Your task to perform on an android device: Open the phone app and click the voicemail tab. Image 0: 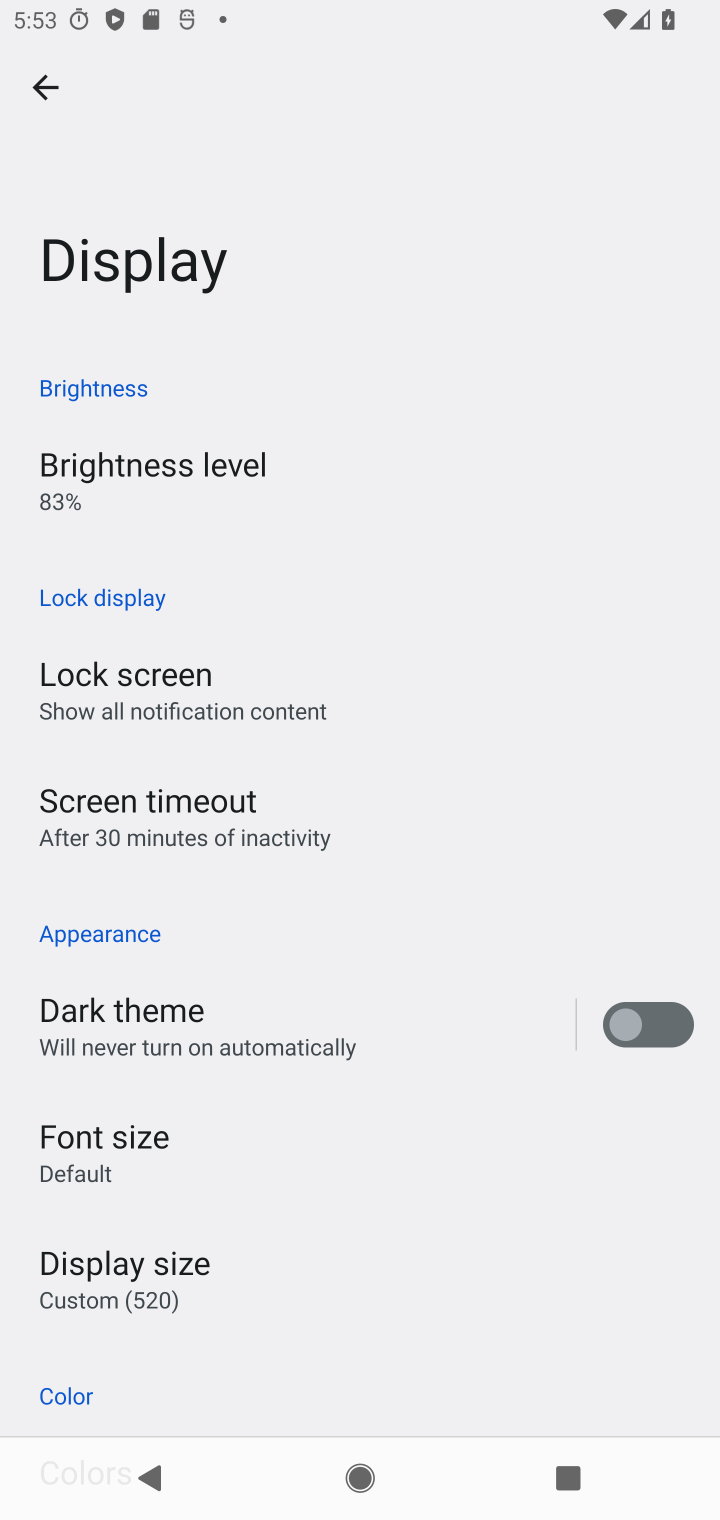
Step 0: press home button
Your task to perform on an android device: Open the phone app and click the voicemail tab. Image 1: 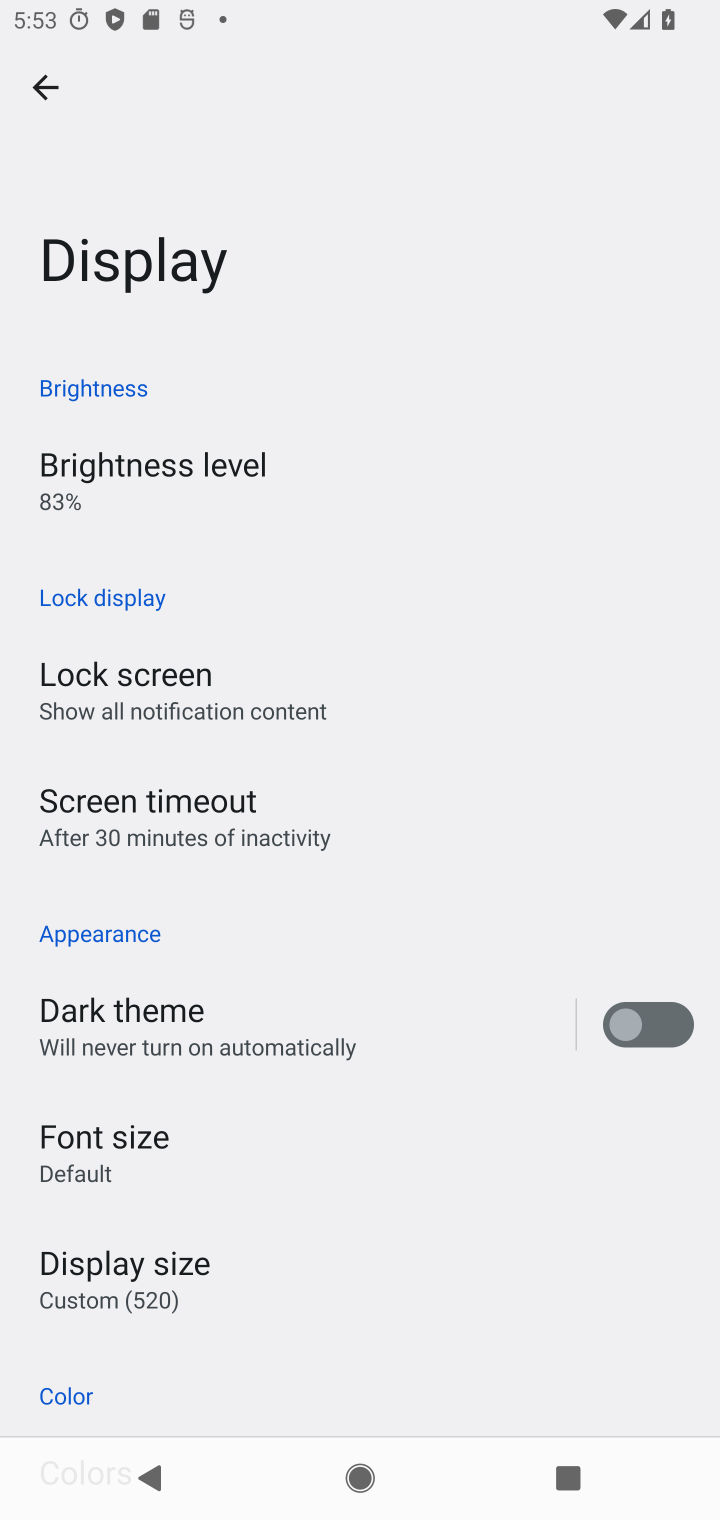
Step 1: press home button
Your task to perform on an android device: Open the phone app and click the voicemail tab. Image 2: 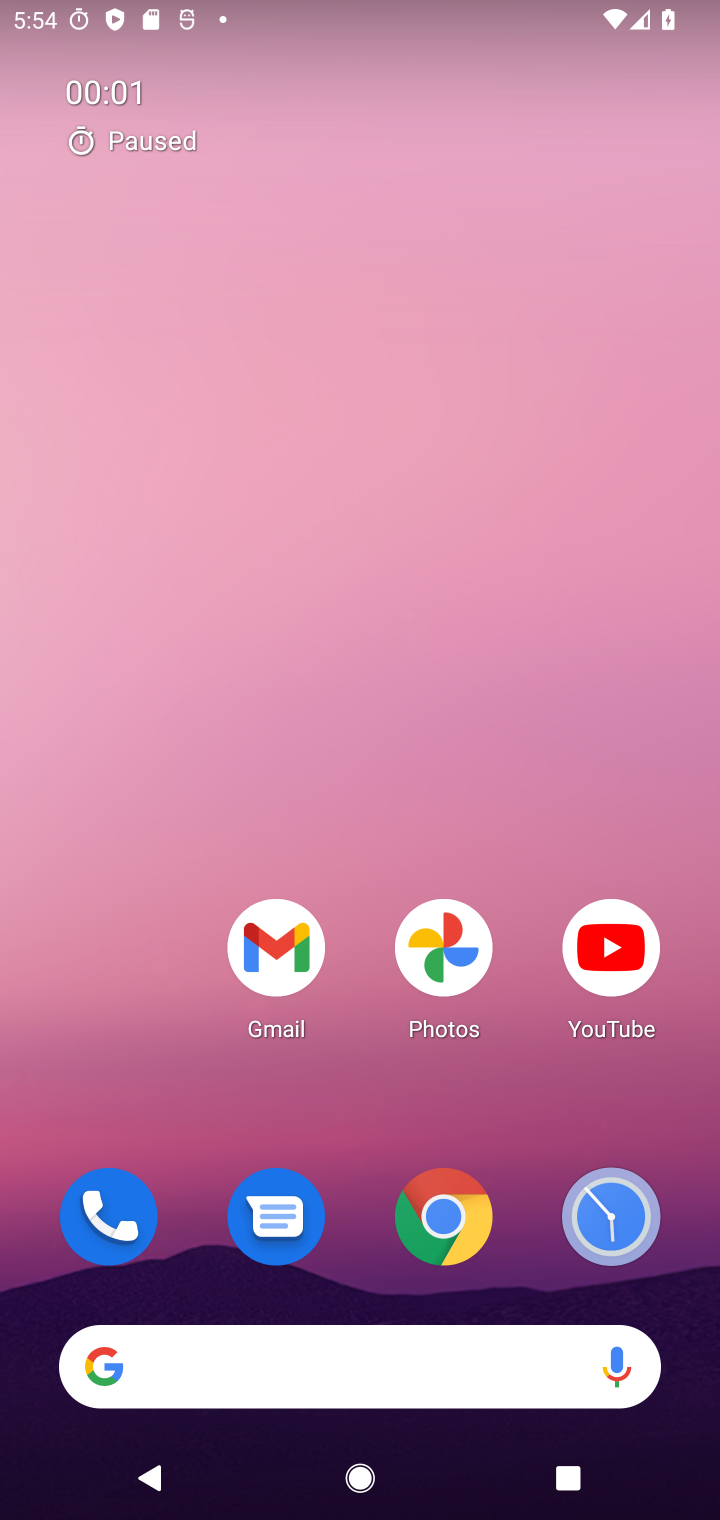
Step 2: drag from (354, 1125) to (356, 198)
Your task to perform on an android device: Open the phone app and click the voicemail tab. Image 3: 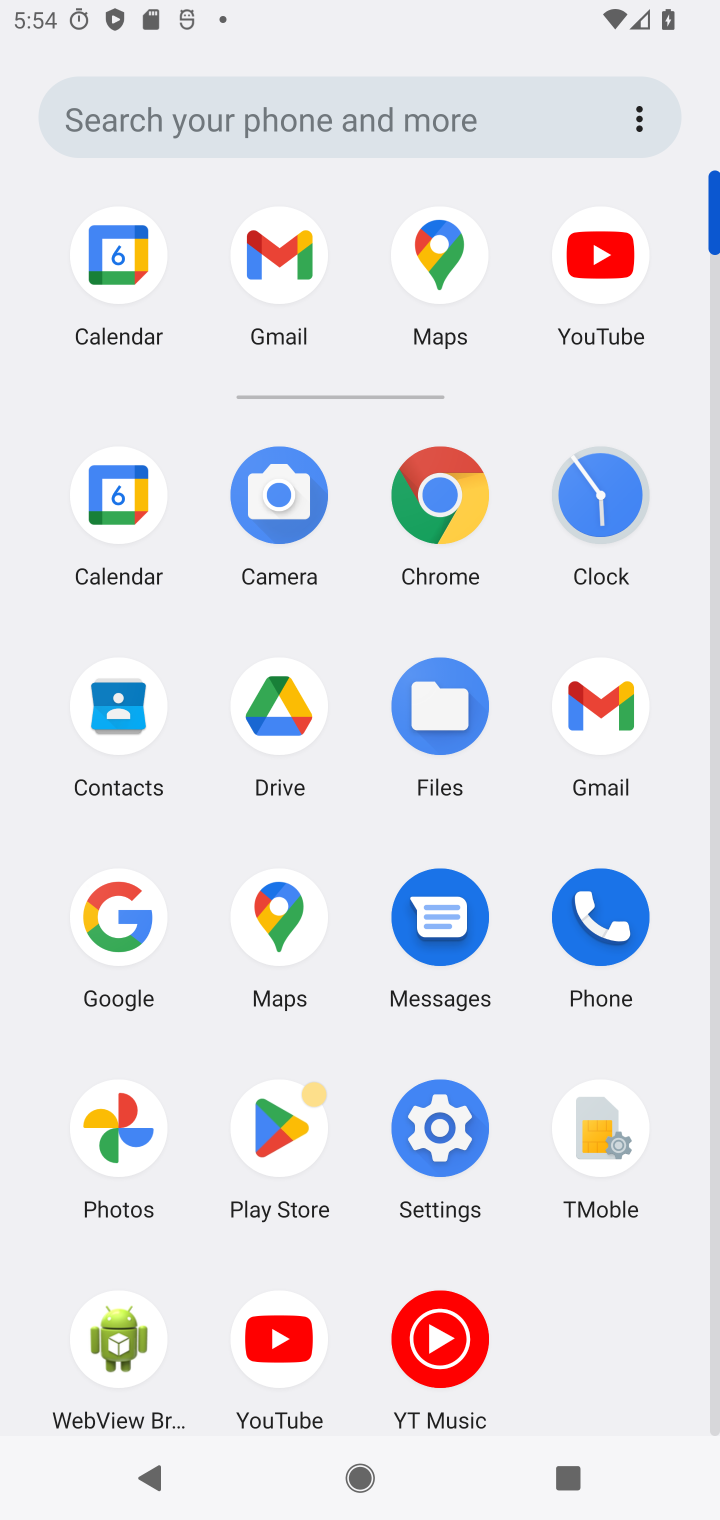
Step 3: click (582, 906)
Your task to perform on an android device: Open the phone app and click the voicemail tab. Image 4: 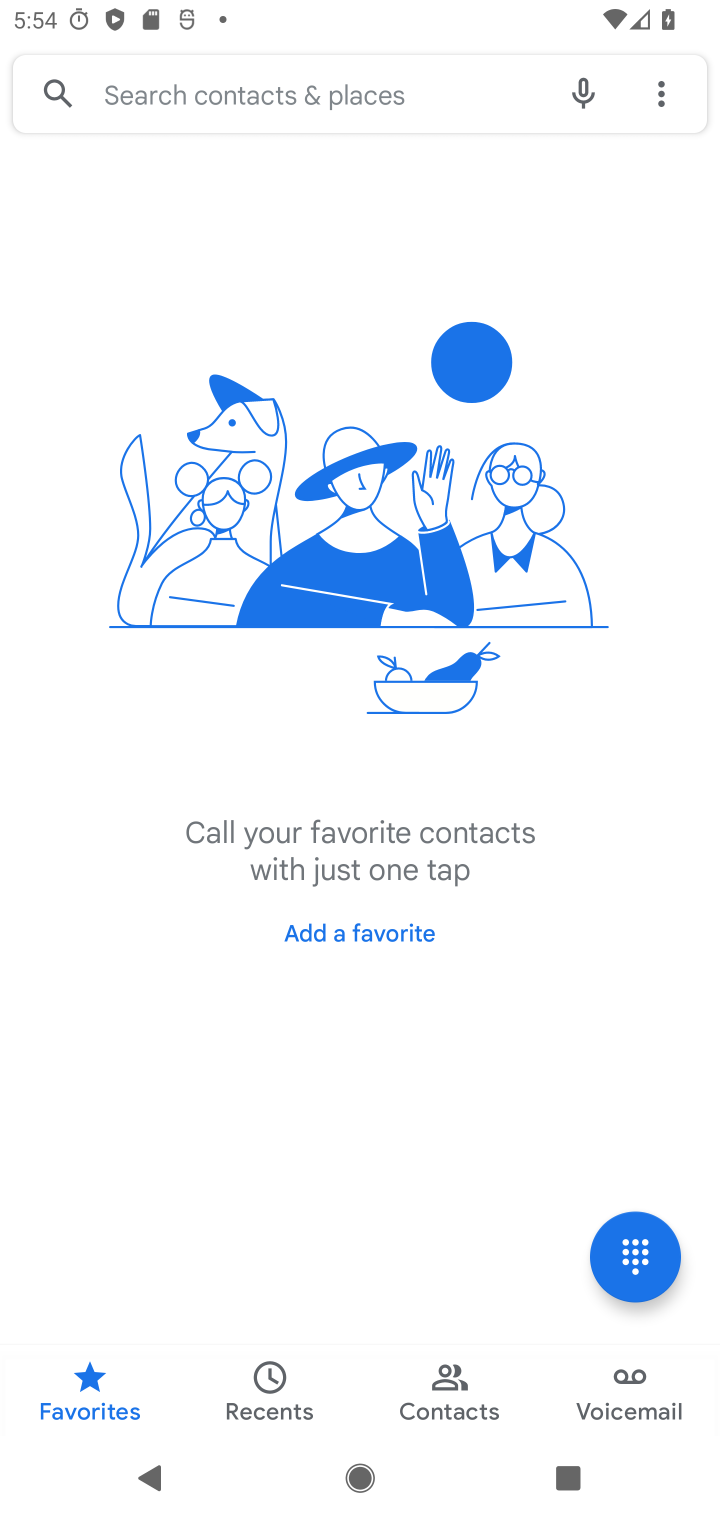
Step 4: click (630, 1379)
Your task to perform on an android device: Open the phone app and click the voicemail tab. Image 5: 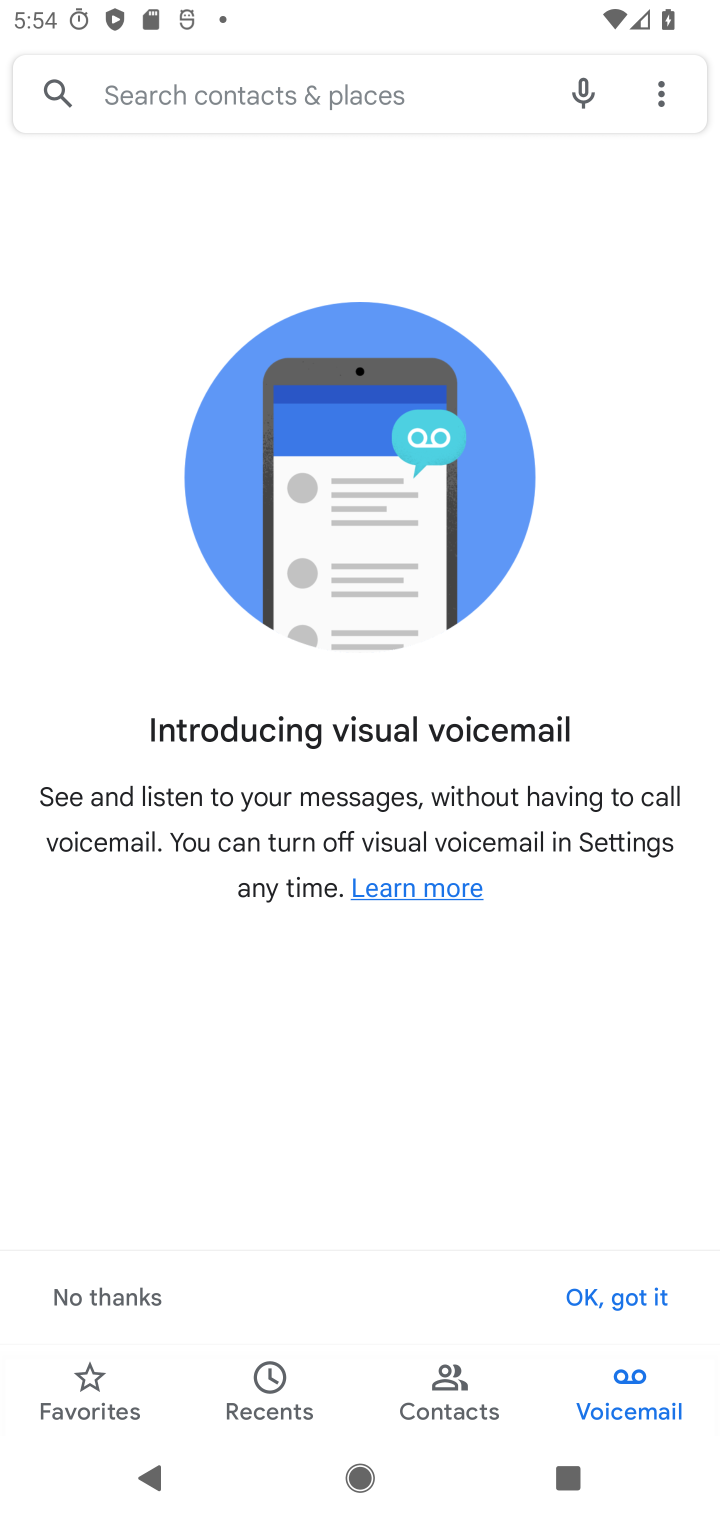
Step 5: task complete